Your task to perform on an android device: change notifications settings Image 0: 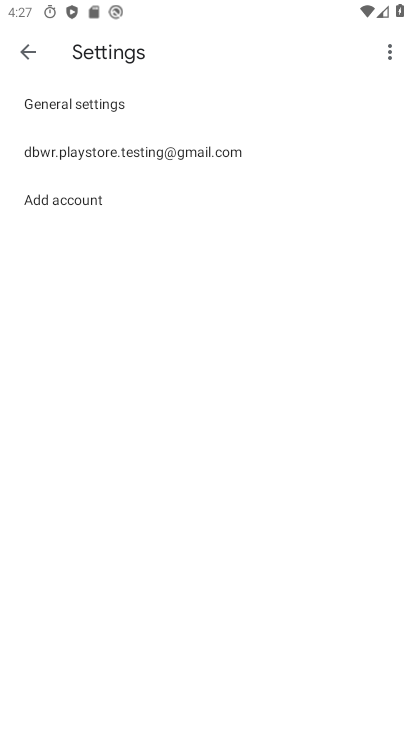
Step 0: press home button
Your task to perform on an android device: change notifications settings Image 1: 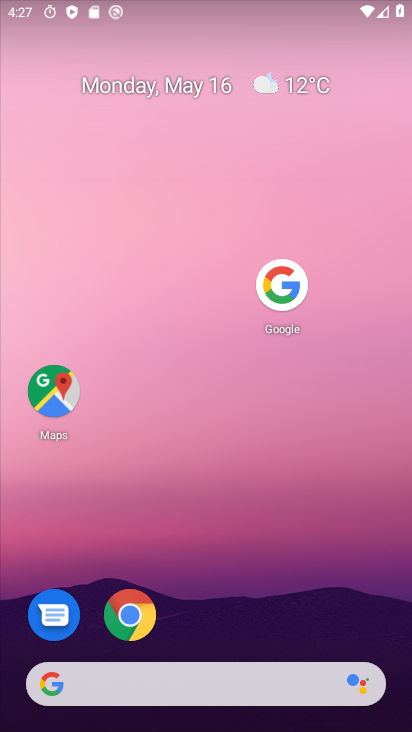
Step 1: drag from (215, 648) to (133, 131)
Your task to perform on an android device: change notifications settings Image 2: 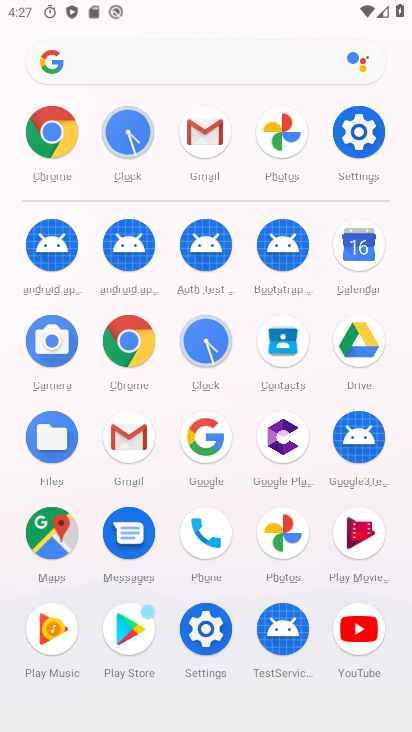
Step 2: click (347, 148)
Your task to perform on an android device: change notifications settings Image 3: 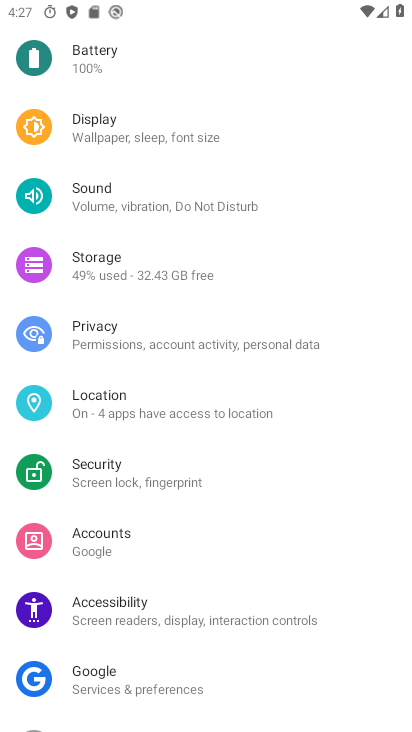
Step 3: drag from (185, 556) to (231, 714)
Your task to perform on an android device: change notifications settings Image 4: 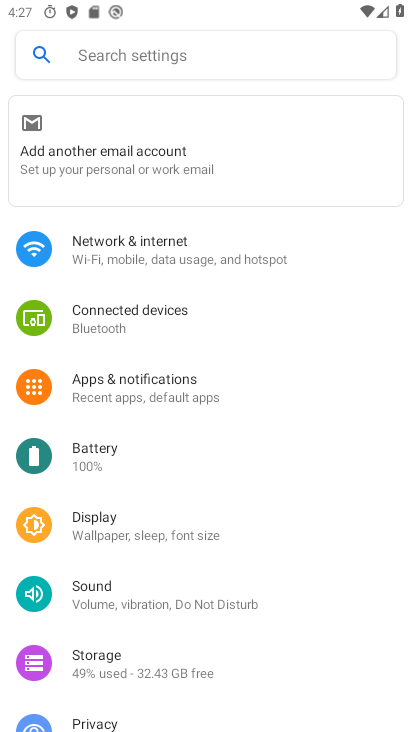
Step 4: click (176, 395)
Your task to perform on an android device: change notifications settings Image 5: 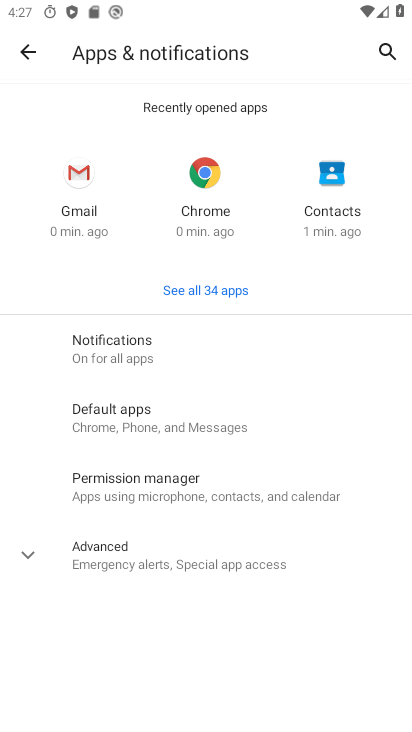
Step 5: click (131, 326)
Your task to perform on an android device: change notifications settings Image 6: 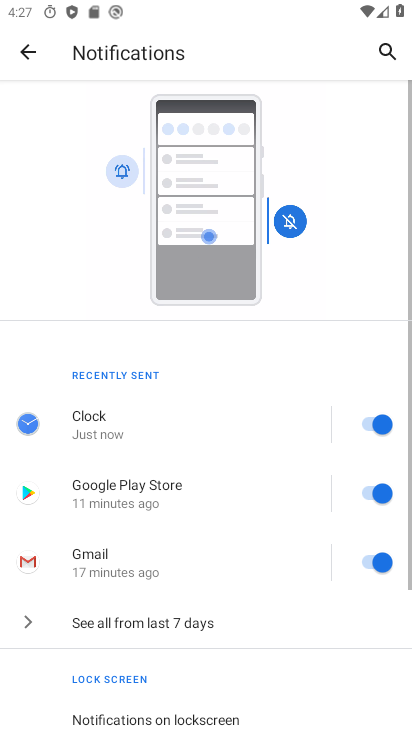
Step 6: drag from (219, 661) to (160, 126)
Your task to perform on an android device: change notifications settings Image 7: 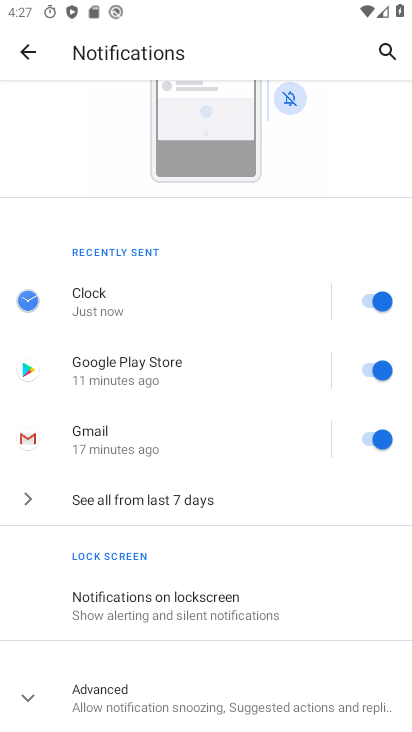
Step 7: click (164, 684)
Your task to perform on an android device: change notifications settings Image 8: 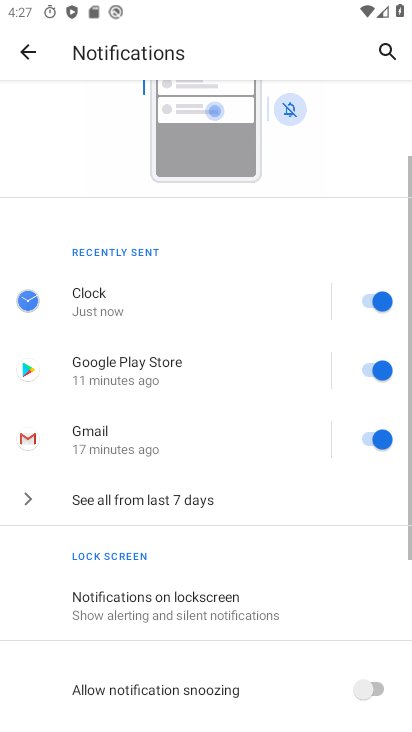
Step 8: click (163, 502)
Your task to perform on an android device: change notifications settings Image 9: 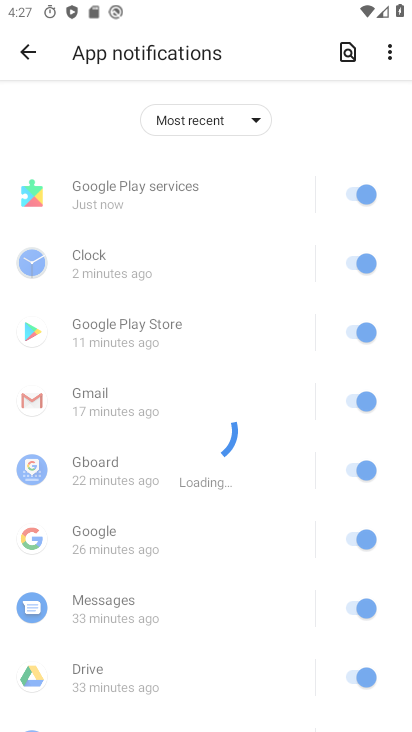
Step 9: click (192, 134)
Your task to perform on an android device: change notifications settings Image 10: 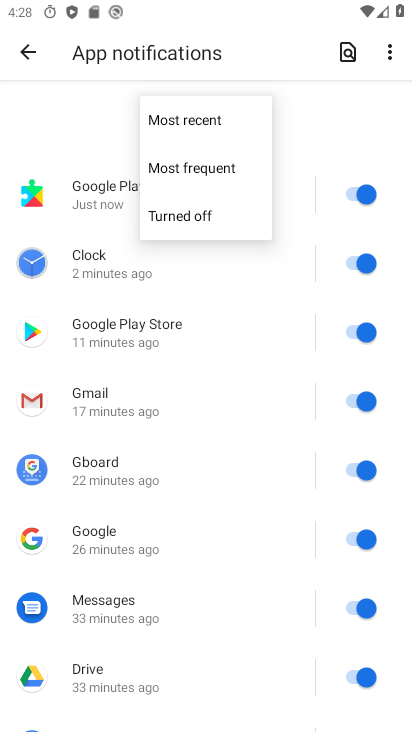
Step 10: click (189, 211)
Your task to perform on an android device: change notifications settings Image 11: 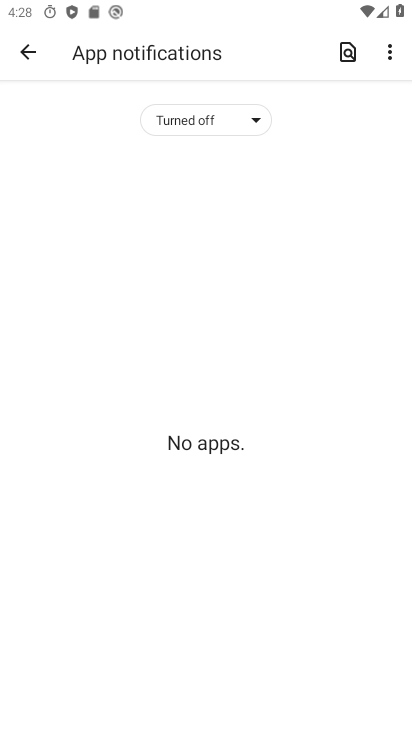
Step 11: task complete